Your task to perform on an android device: toggle improve location accuracy Image 0: 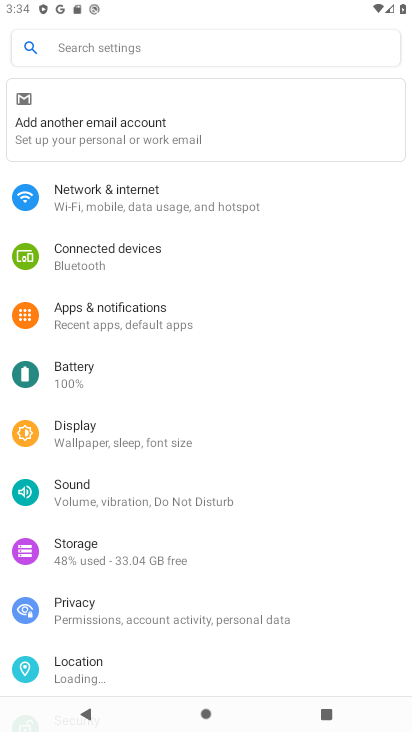
Step 0: click (97, 658)
Your task to perform on an android device: toggle improve location accuracy Image 1: 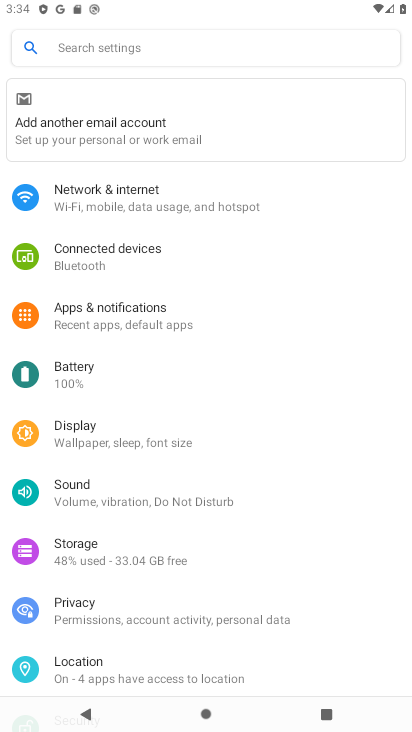
Step 1: drag from (312, 562) to (217, 254)
Your task to perform on an android device: toggle improve location accuracy Image 2: 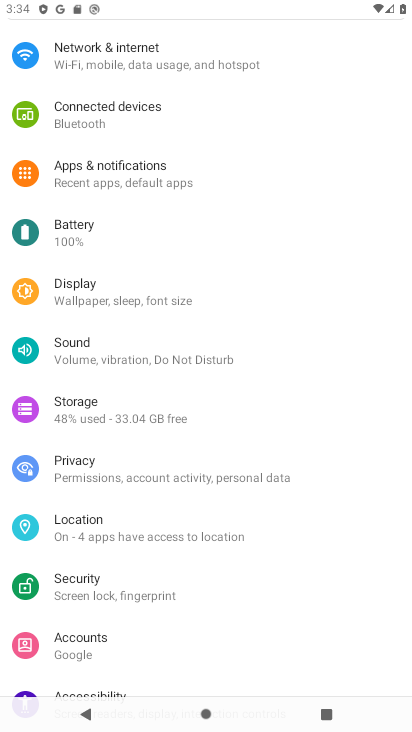
Step 2: drag from (221, 481) to (219, 404)
Your task to perform on an android device: toggle improve location accuracy Image 3: 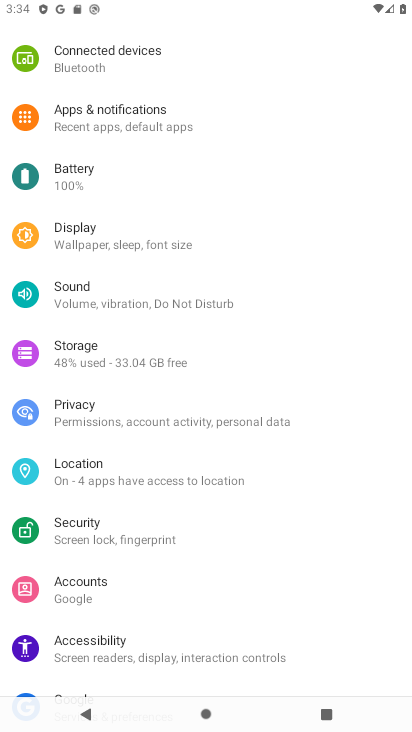
Step 3: click (84, 476)
Your task to perform on an android device: toggle improve location accuracy Image 4: 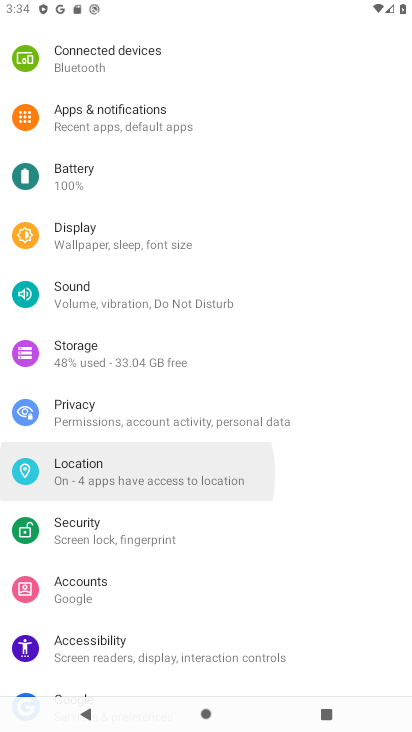
Step 4: click (84, 476)
Your task to perform on an android device: toggle improve location accuracy Image 5: 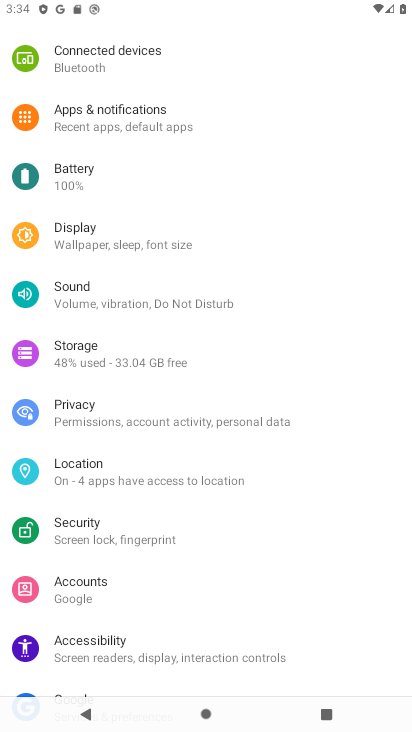
Step 5: click (87, 472)
Your task to perform on an android device: toggle improve location accuracy Image 6: 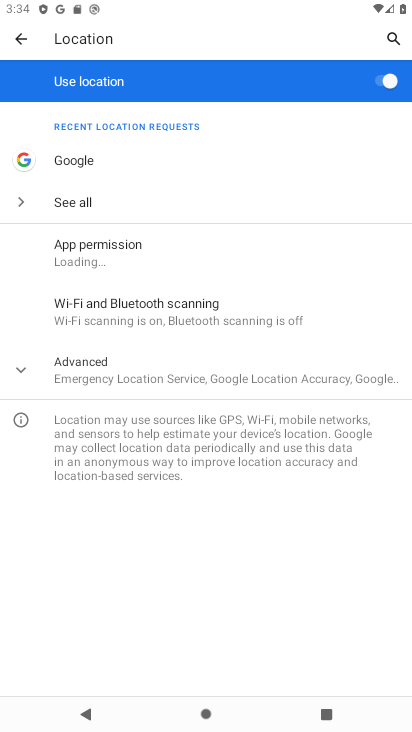
Step 6: task complete